Your task to perform on an android device: turn on data saver in the chrome app Image 0: 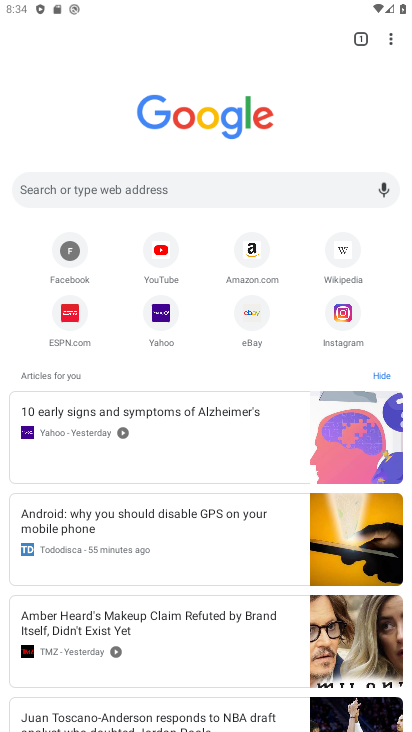
Step 0: press back button
Your task to perform on an android device: turn on data saver in the chrome app Image 1: 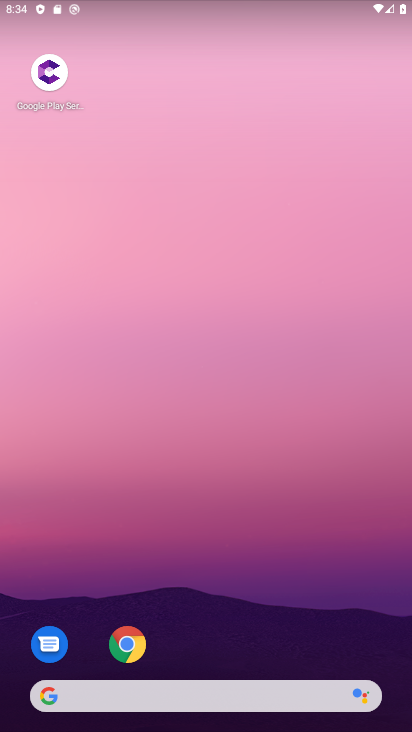
Step 1: click (129, 632)
Your task to perform on an android device: turn on data saver in the chrome app Image 2: 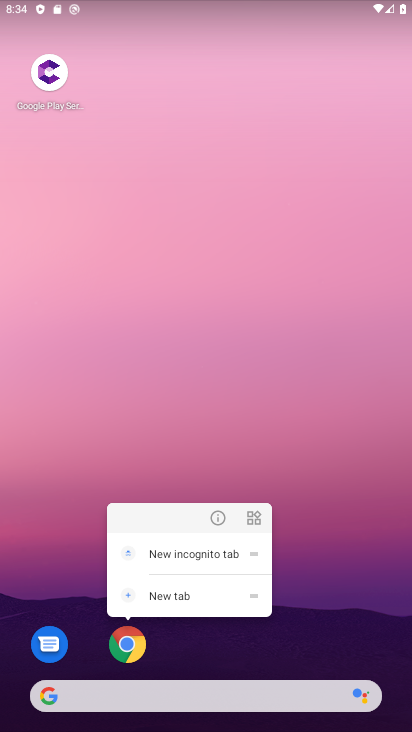
Step 2: click (125, 650)
Your task to perform on an android device: turn on data saver in the chrome app Image 3: 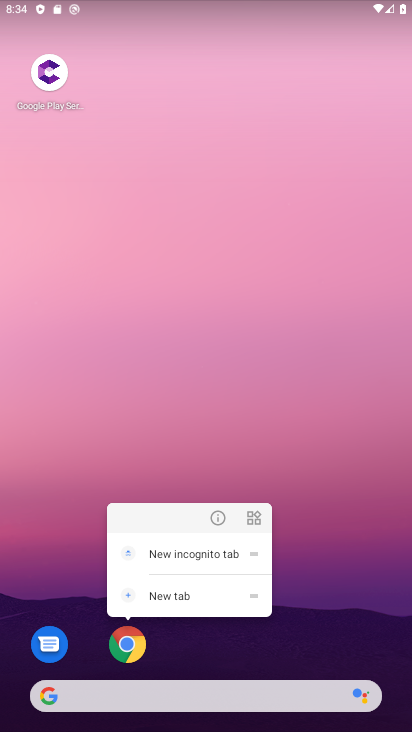
Step 3: click (134, 646)
Your task to perform on an android device: turn on data saver in the chrome app Image 4: 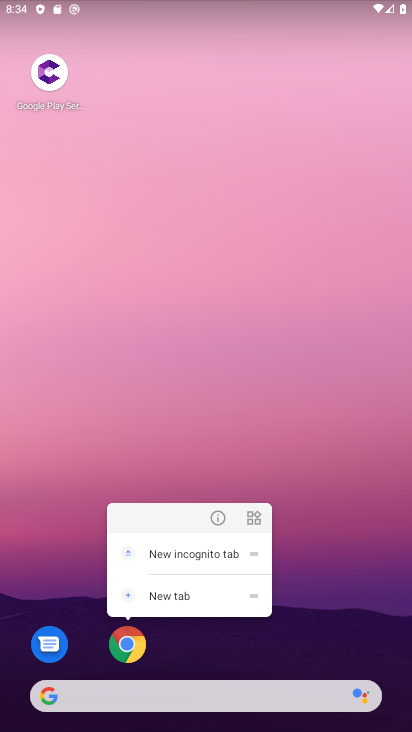
Step 4: click (133, 642)
Your task to perform on an android device: turn on data saver in the chrome app Image 5: 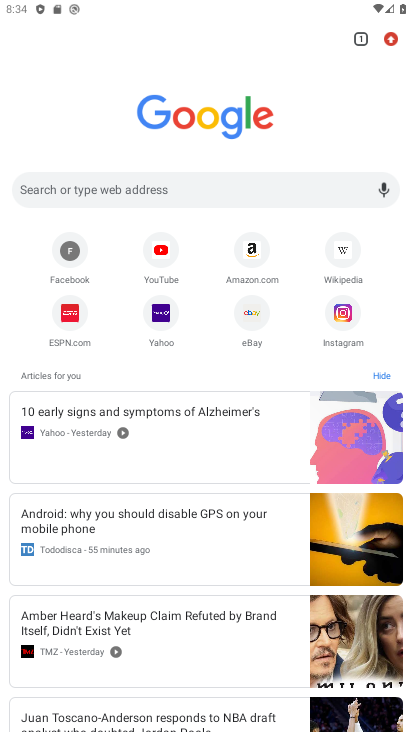
Step 5: drag from (397, 49) to (310, 370)
Your task to perform on an android device: turn on data saver in the chrome app Image 6: 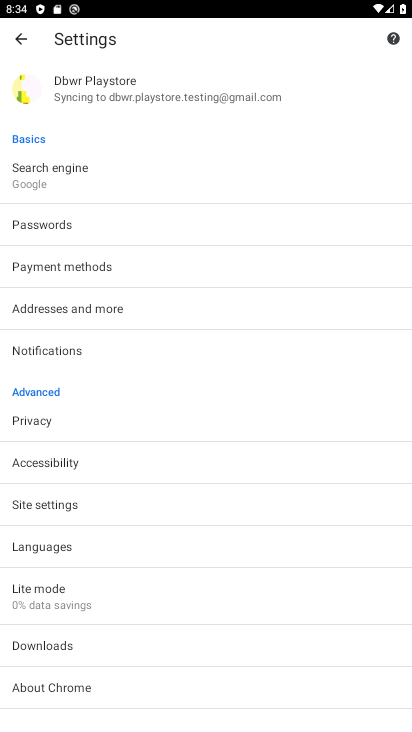
Step 6: click (164, 598)
Your task to perform on an android device: turn on data saver in the chrome app Image 7: 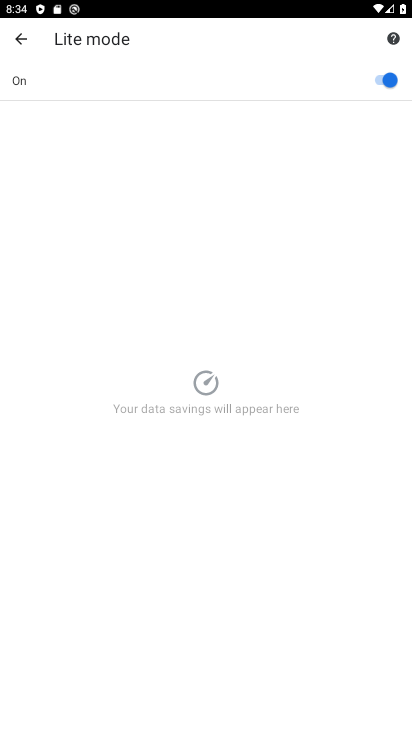
Step 7: task complete